Your task to perform on an android device: What's on my calendar today? Image 0: 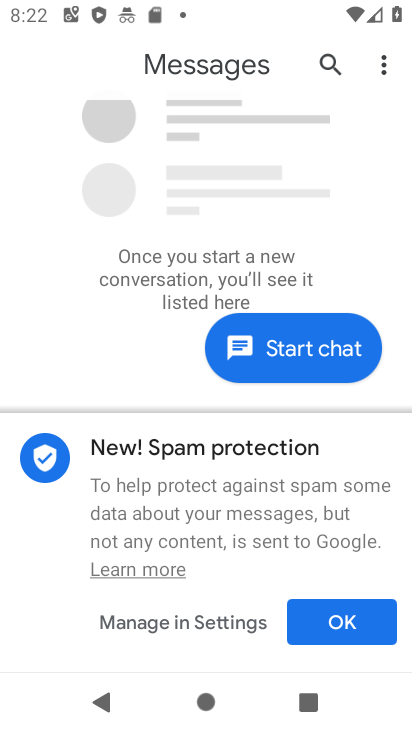
Step 0: press home button
Your task to perform on an android device: What's on my calendar today? Image 1: 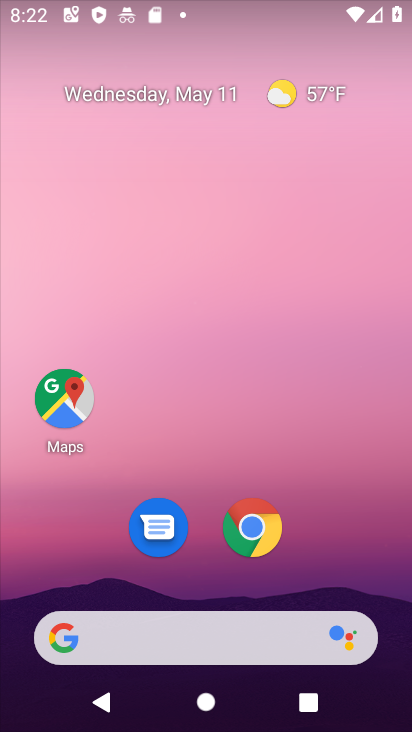
Step 1: drag from (337, 108) to (330, 16)
Your task to perform on an android device: What's on my calendar today? Image 2: 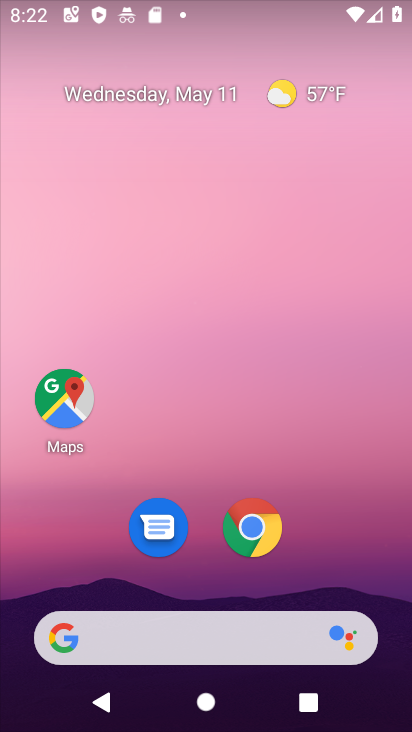
Step 2: drag from (351, 566) to (328, 6)
Your task to perform on an android device: What's on my calendar today? Image 3: 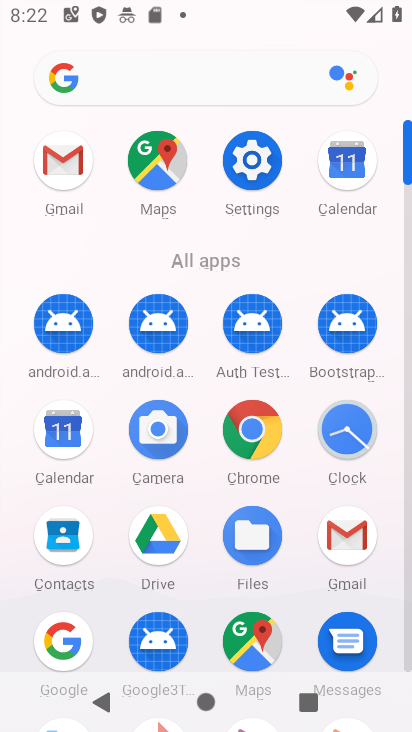
Step 3: click (349, 179)
Your task to perform on an android device: What's on my calendar today? Image 4: 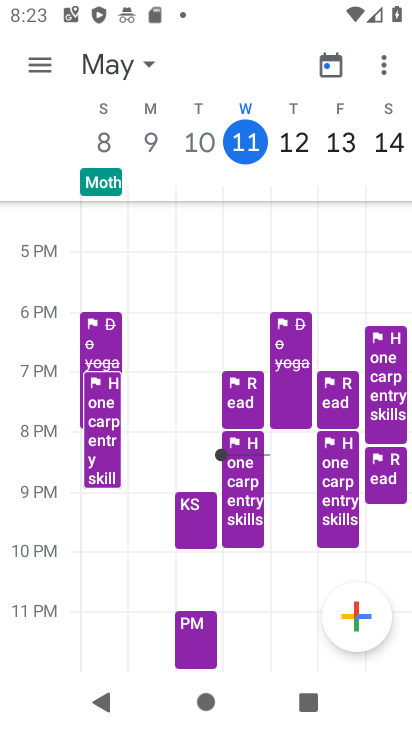
Step 4: click (38, 65)
Your task to perform on an android device: What's on my calendar today? Image 5: 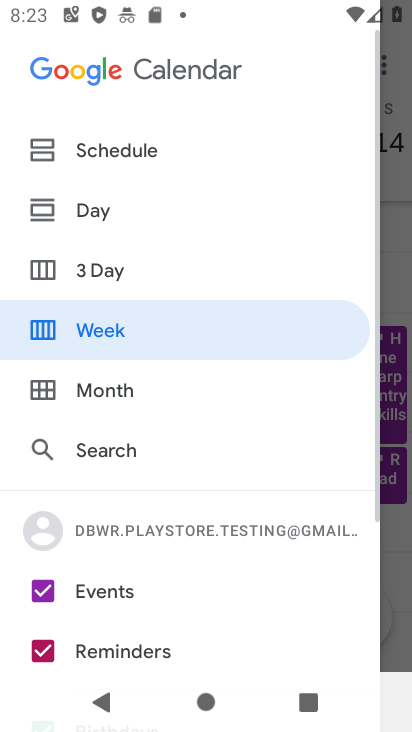
Step 5: click (44, 150)
Your task to perform on an android device: What's on my calendar today? Image 6: 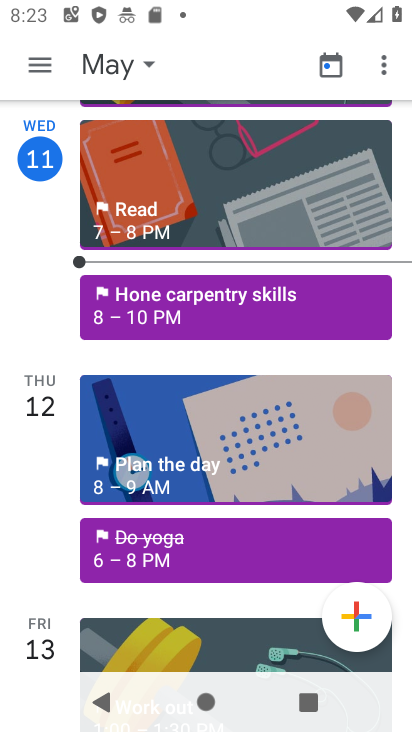
Step 6: drag from (171, 335) to (156, 461)
Your task to perform on an android device: What's on my calendar today? Image 7: 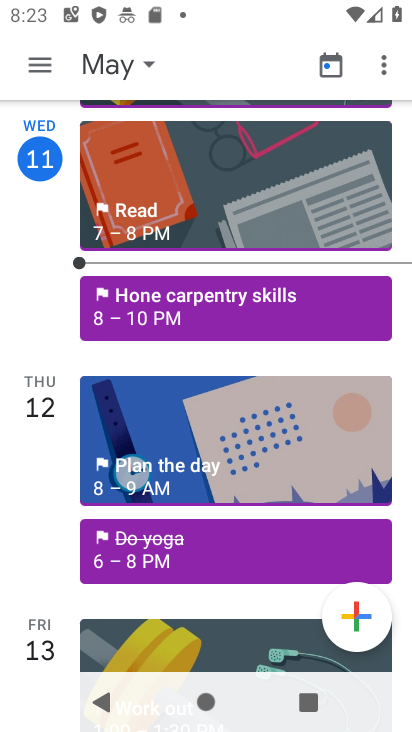
Step 7: click (174, 304)
Your task to perform on an android device: What's on my calendar today? Image 8: 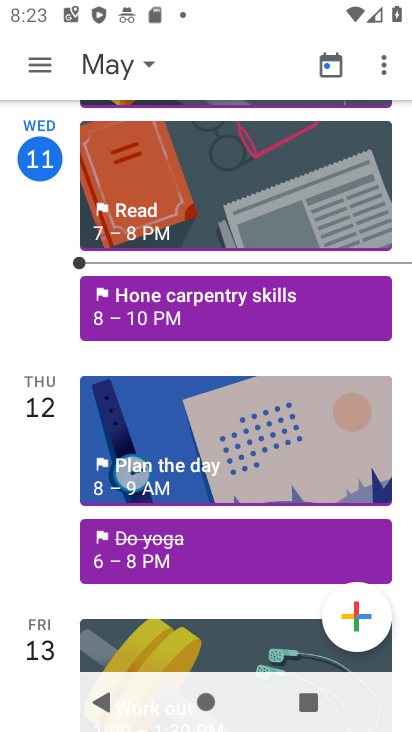
Step 8: click (204, 292)
Your task to perform on an android device: What's on my calendar today? Image 9: 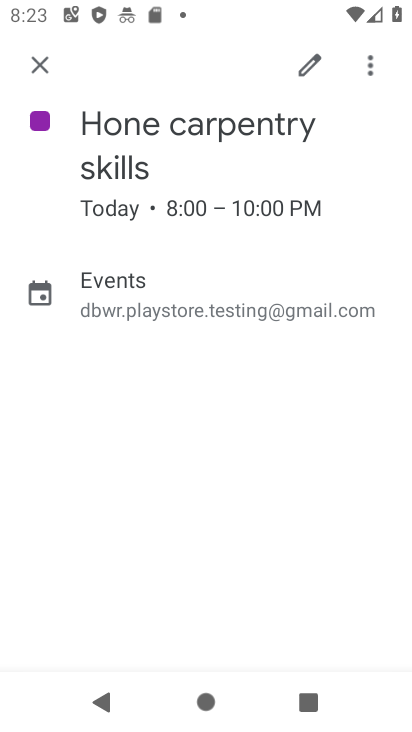
Step 9: task complete